Your task to perform on an android device: turn off javascript in the chrome app Image 0: 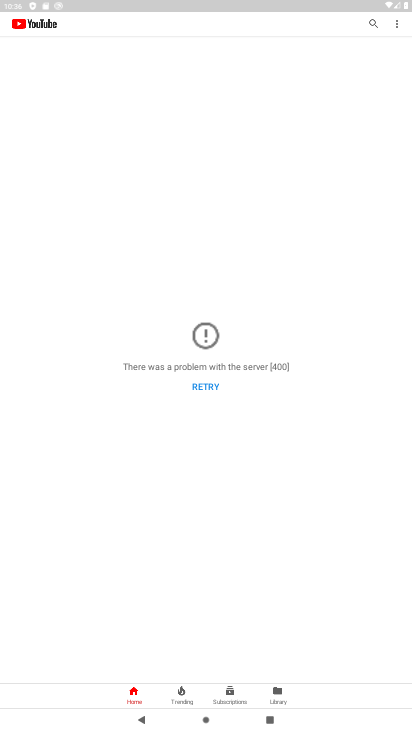
Step 0: press home button
Your task to perform on an android device: turn off javascript in the chrome app Image 1: 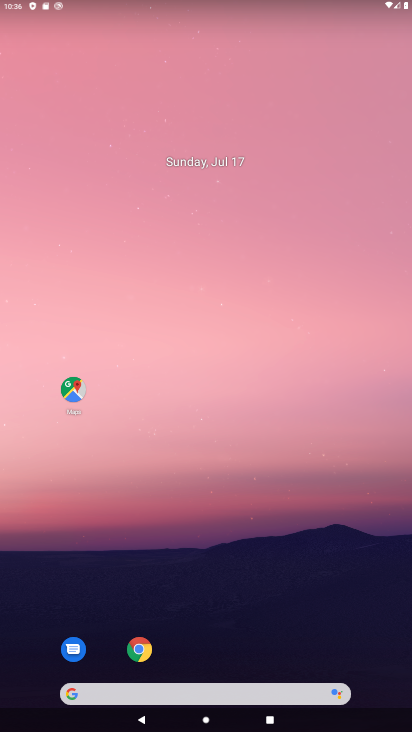
Step 1: click (143, 650)
Your task to perform on an android device: turn off javascript in the chrome app Image 2: 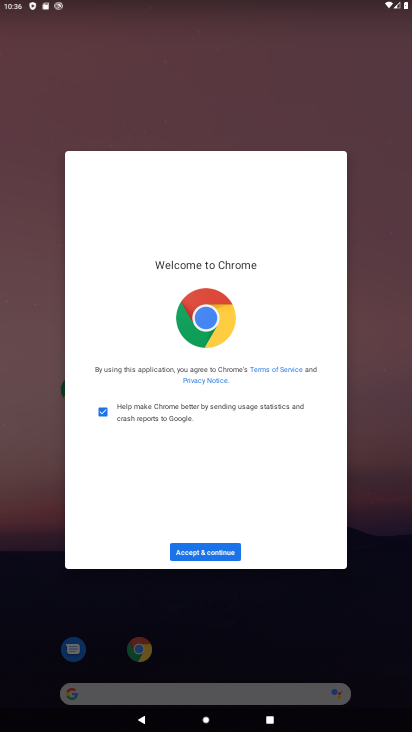
Step 2: click (212, 552)
Your task to perform on an android device: turn off javascript in the chrome app Image 3: 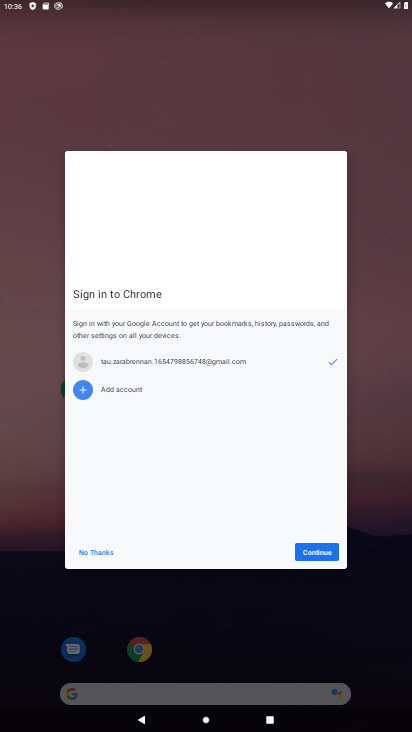
Step 3: click (308, 552)
Your task to perform on an android device: turn off javascript in the chrome app Image 4: 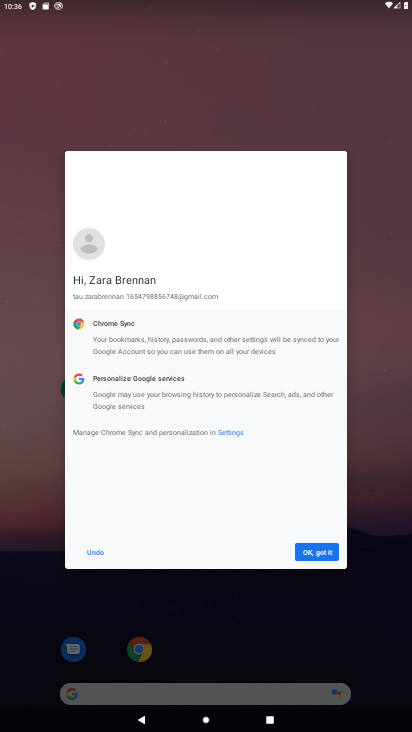
Step 4: click (308, 552)
Your task to perform on an android device: turn off javascript in the chrome app Image 5: 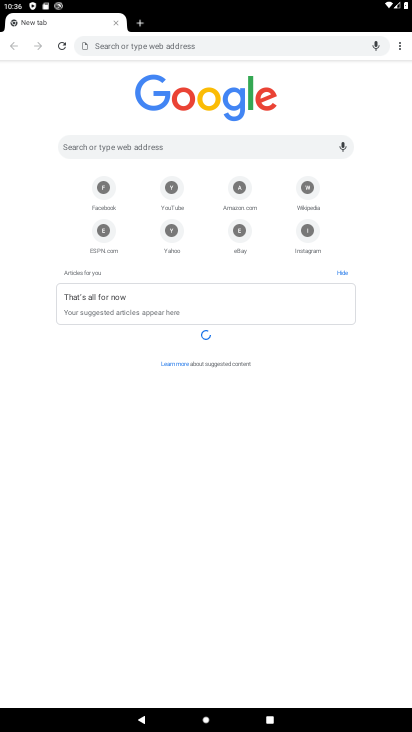
Step 5: click (401, 46)
Your task to perform on an android device: turn off javascript in the chrome app Image 6: 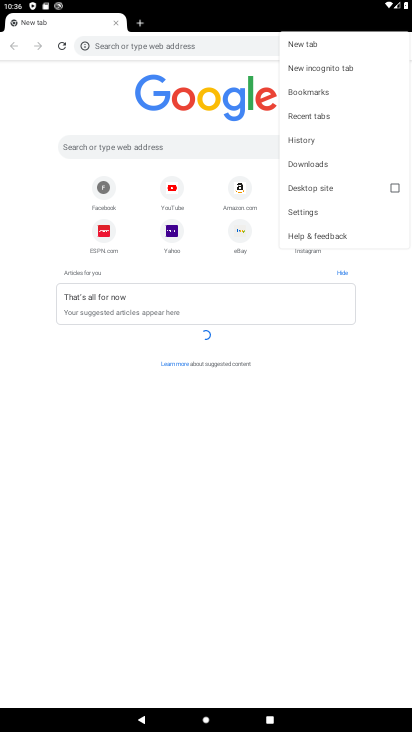
Step 6: click (296, 214)
Your task to perform on an android device: turn off javascript in the chrome app Image 7: 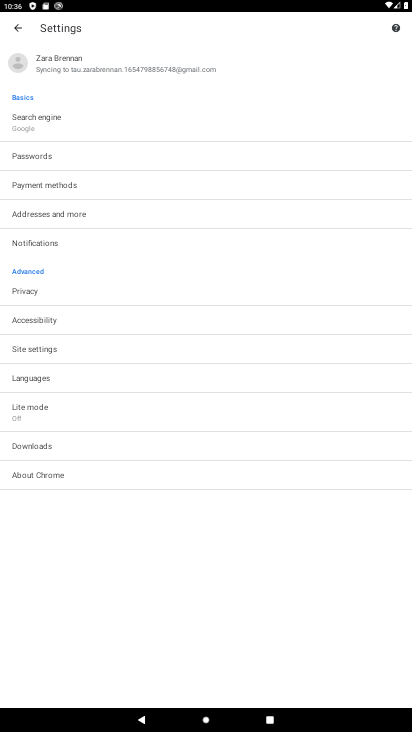
Step 7: click (77, 372)
Your task to perform on an android device: turn off javascript in the chrome app Image 8: 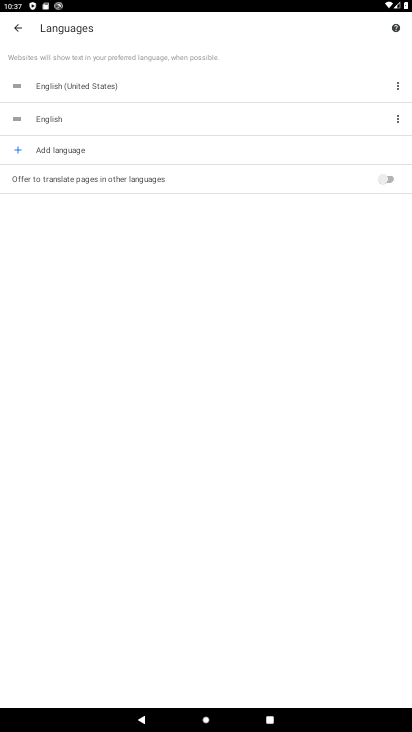
Step 8: task complete